Your task to perform on an android device: Open Wikipedia Image 0: 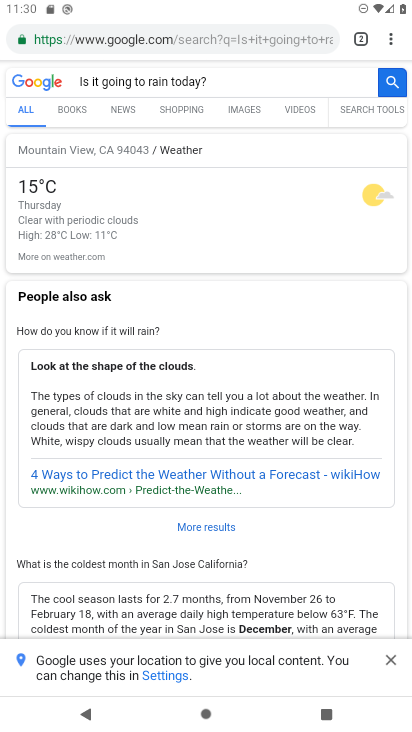
Step 0: press home button
Your task to perform on an android device: Open Wikipedia Image 1: 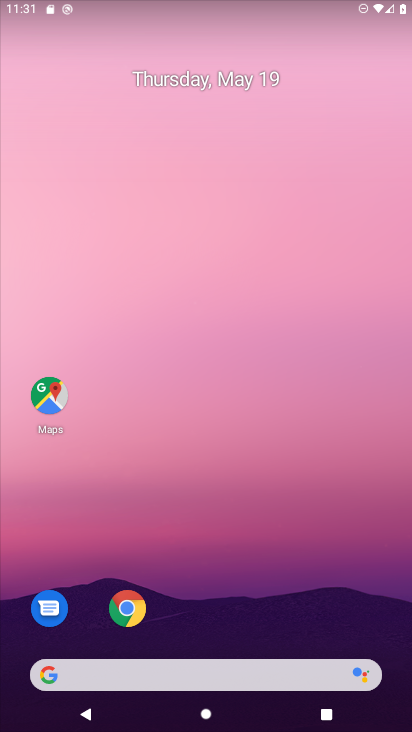
Step 1: click (124, 617)
Your task to perform on an android device: Open Wikipedia Image 2: 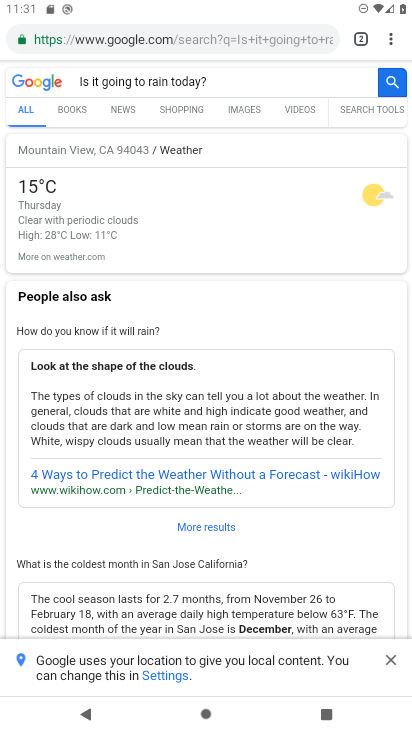
Step 2: click (158, 45)
Your task to perform on an android device: Open Wikipedia Image 3: 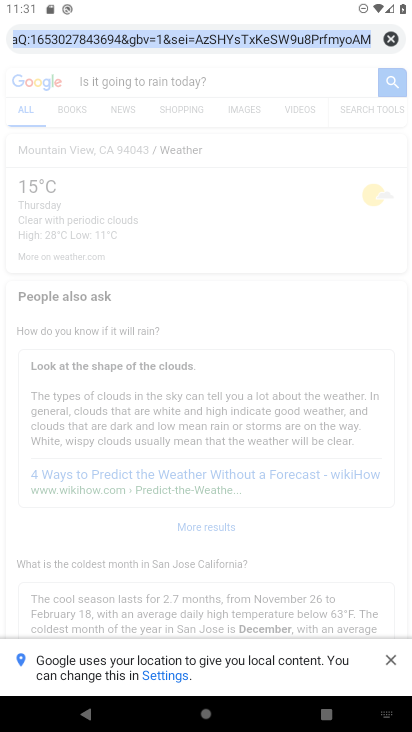
Step 3: click (381, 35)
Your task to perform on an android device: Open Wikipedia Image 4: 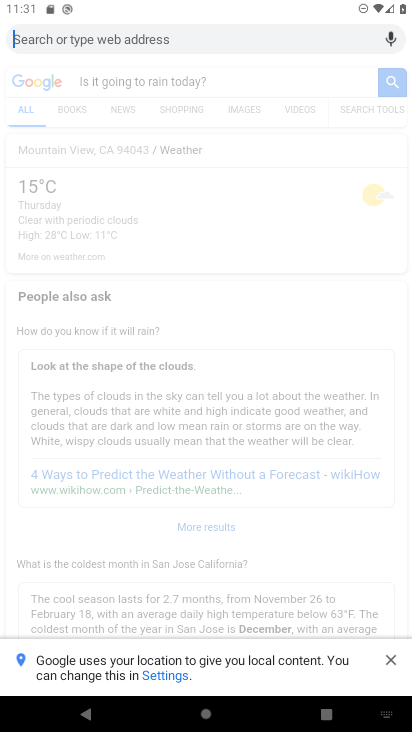
Step 4: type " Wikipedia"
Your task to perform on an android device: Open Wikipedia Image 5: 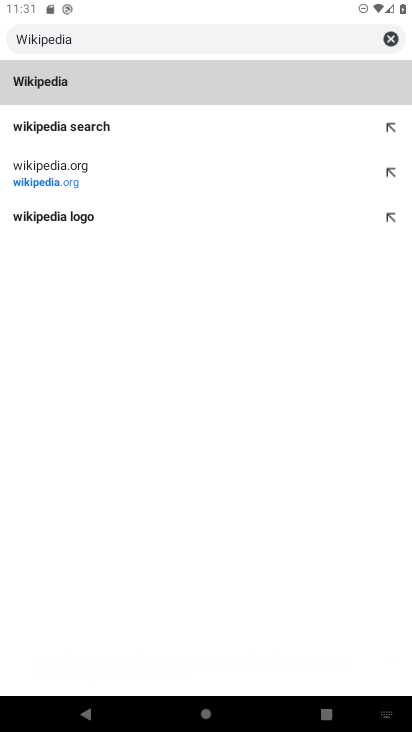
Step 5: click (120, 73)
Your task to perform on an android device: Open Wikipedia Image 6: 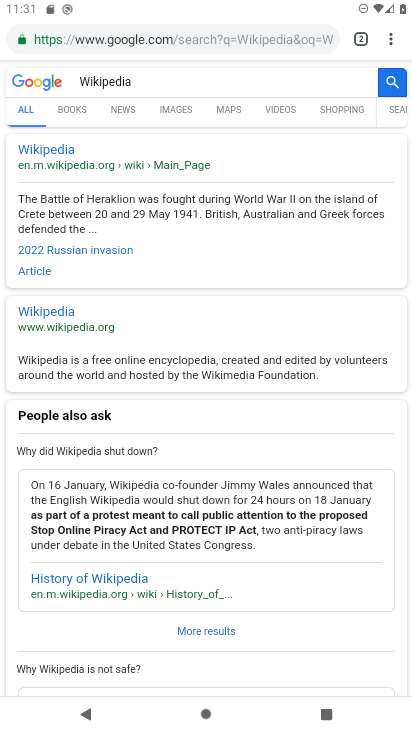
Step 6: click (58, 160)
Your task to perform on an android device: Open Wikipedia Image 7: 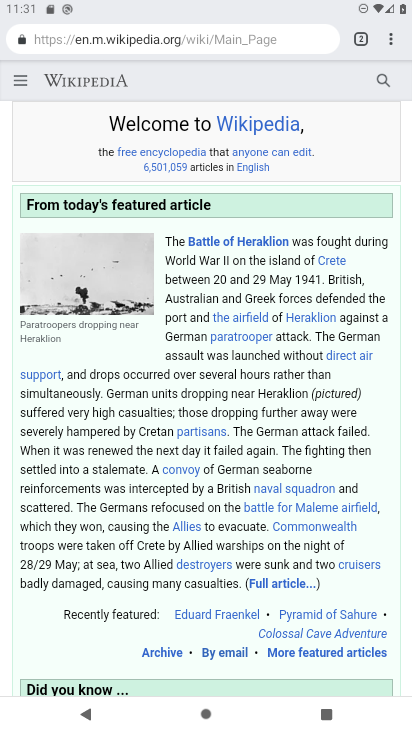
Step 7: task complete